Your task to perform on an android device: turn on improve location accuracy Image 0: 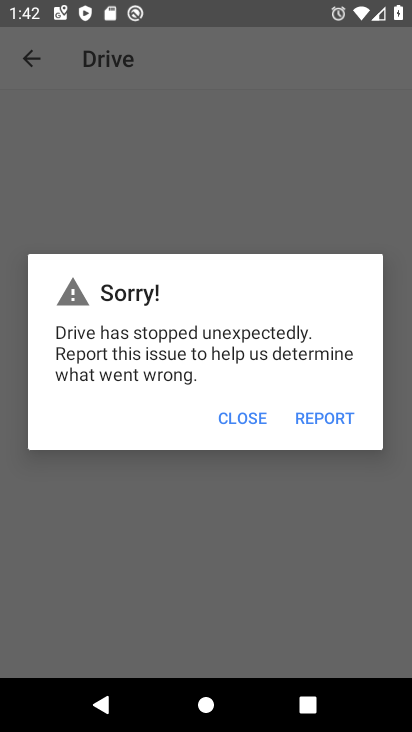
Step 0: press home button
Your task to perform on an android device: turn on improve location accuracy Image 1: 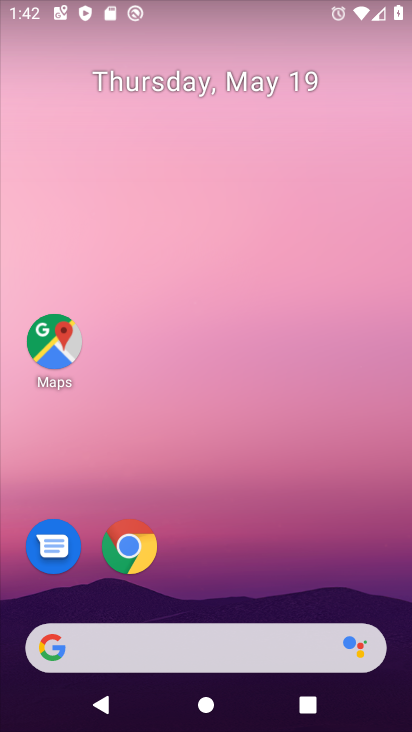
Step 1: drag from (199, 578) to (222, 202)
Your task to perform on an android device: turn on improve location accuracy Image 2: 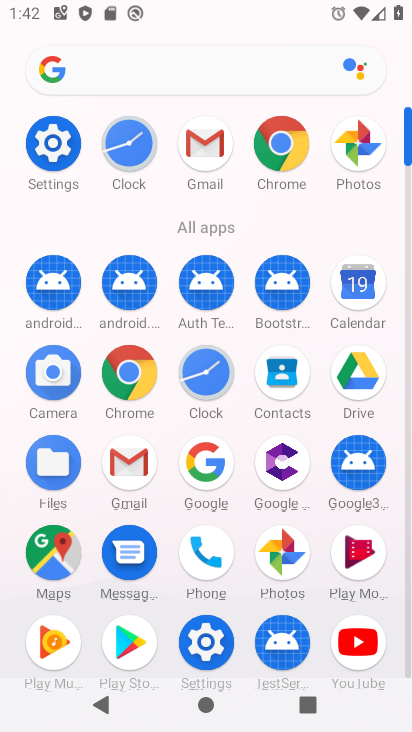
Step 2: click (51, 154)
Your task to perform on an android device: turn on improve location accuracy Image 3: 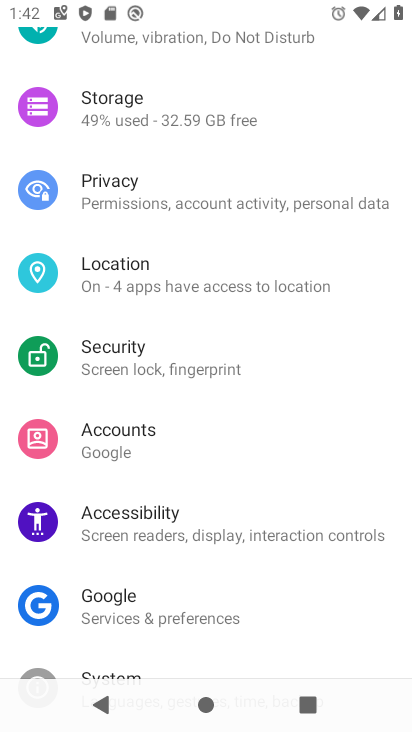
Step 3: click (165, 283)
Your task to perform on an android device: turn on improve location accuracy Image 4: 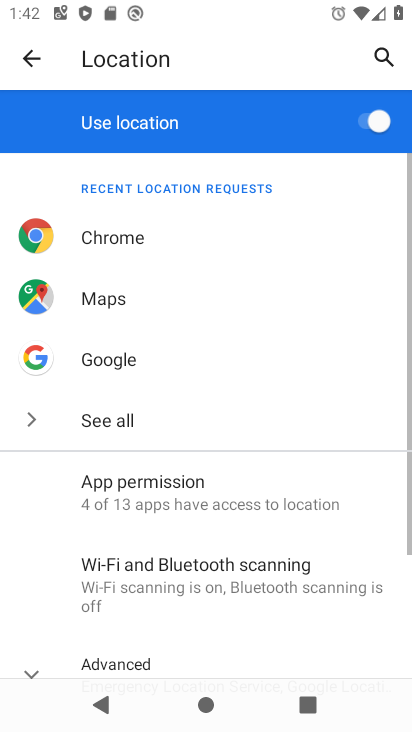
Step 4: drag from (197, 615) to (331, 246)
Your task to perform on an android device: turn on improve location accuracy Image 5: 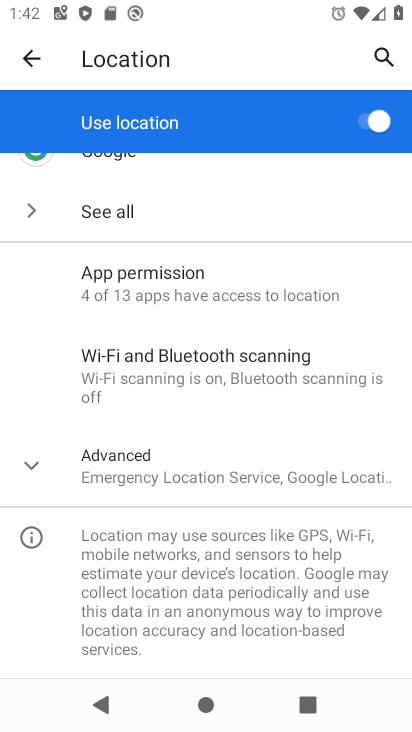
Step 5: click (35, 464)
Your task to perform on an android device: turn on improve location accuracy Image 6: 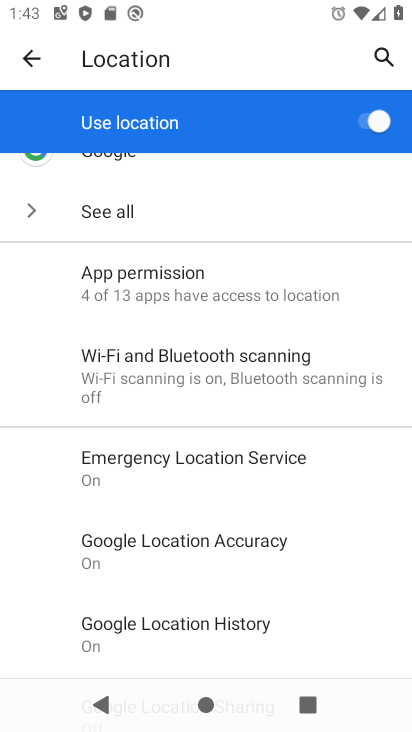
Step 6: click (256, 538)
Your task to perform on an android device: turn on improve location accuracy Image 7: 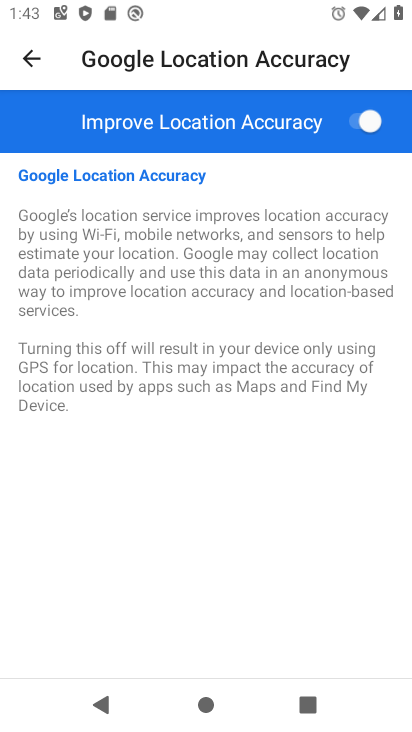
Step 7: task complete